Your task to perform on an android device: Play the new Maroon 5 video on YouTube Image 0: 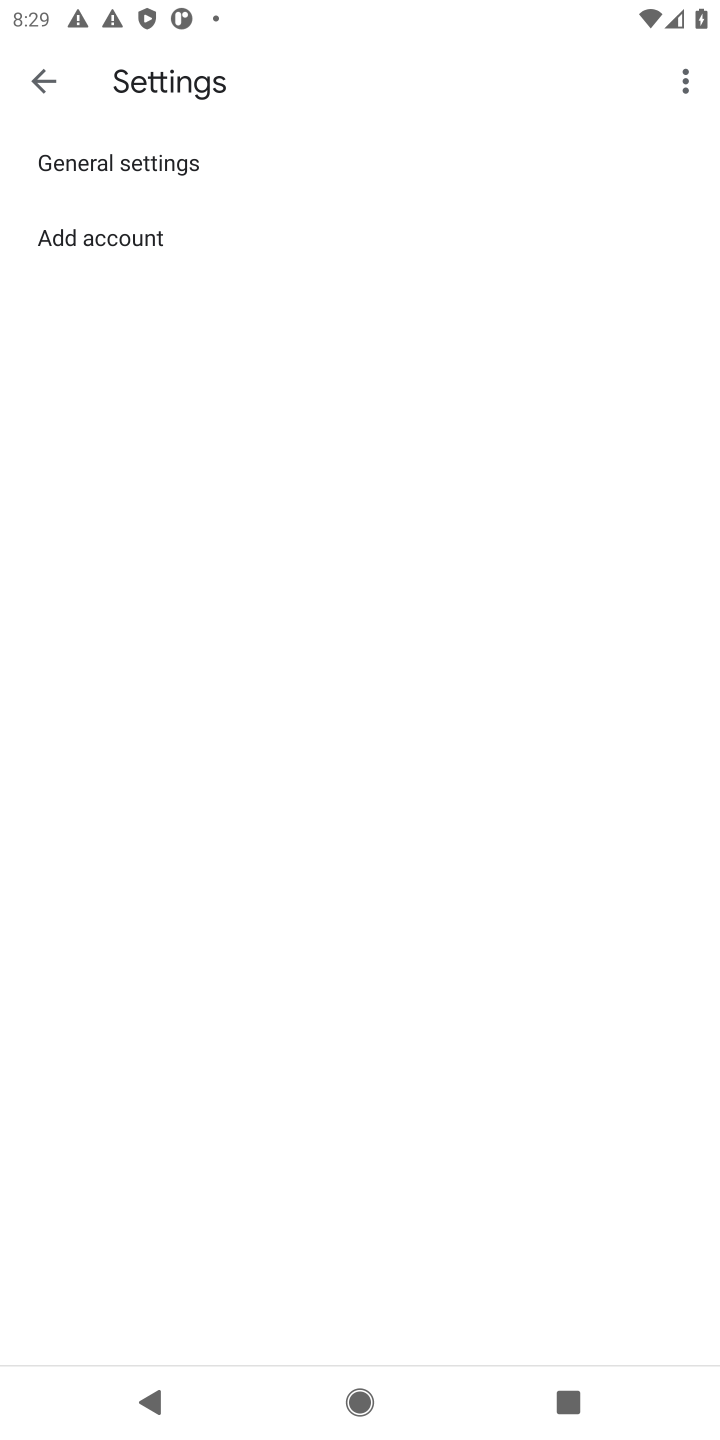
Step 0: press home button
Your task to perform on an android device: Play the new Maroon 5 video on YouTube Image 1: 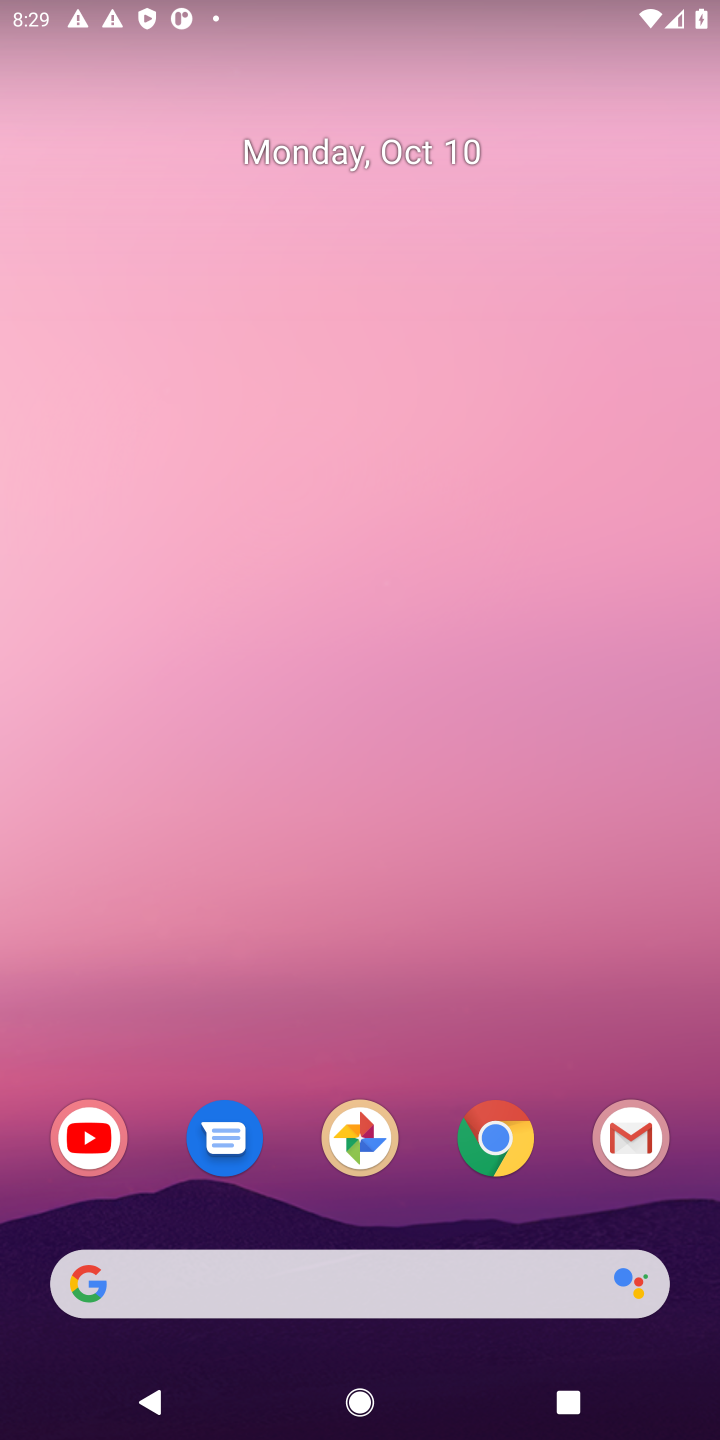
Step 1: click (84, 1140)
Your task to perform on an android device: Play the new Maroon 5 video on YouTube Image 2: 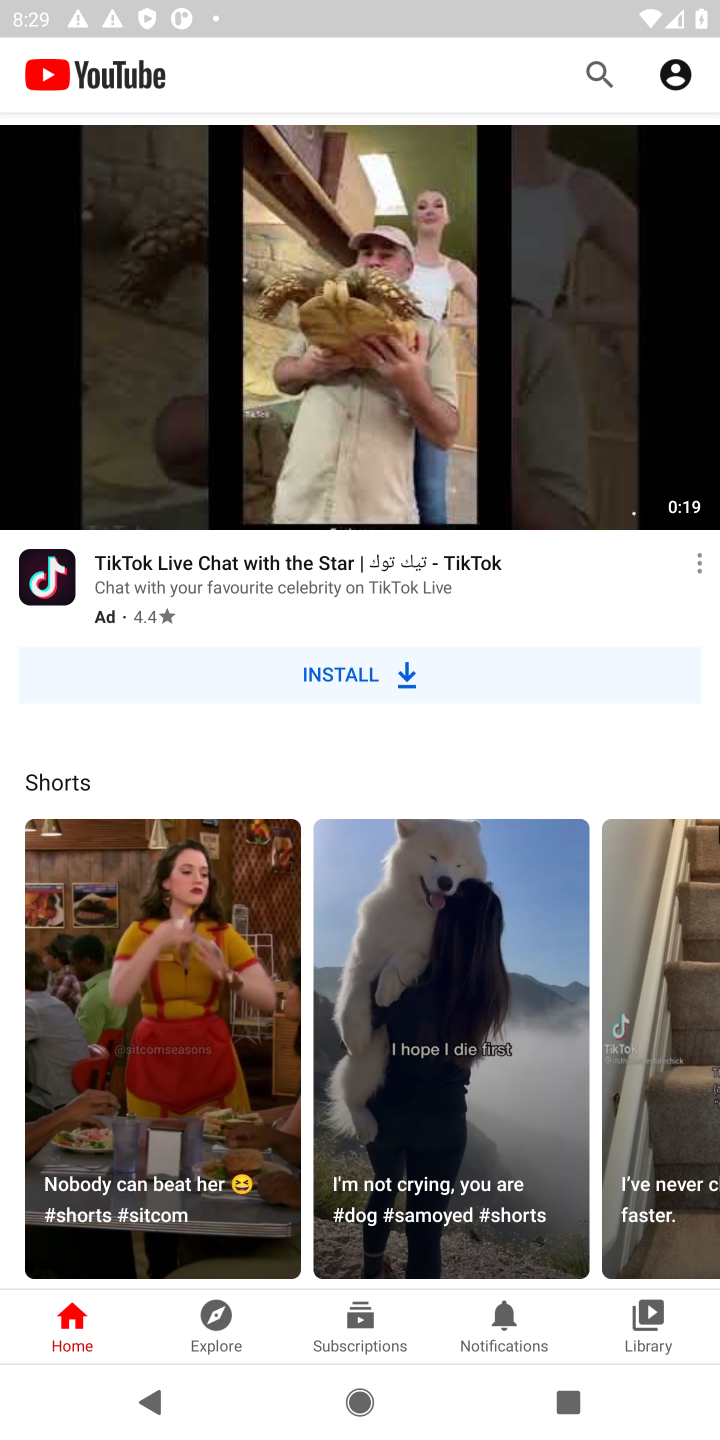
Step 2: click (598, 74)
Your task to perform on an android device: Play the new Maroon 5 video on YouTube Image 3: 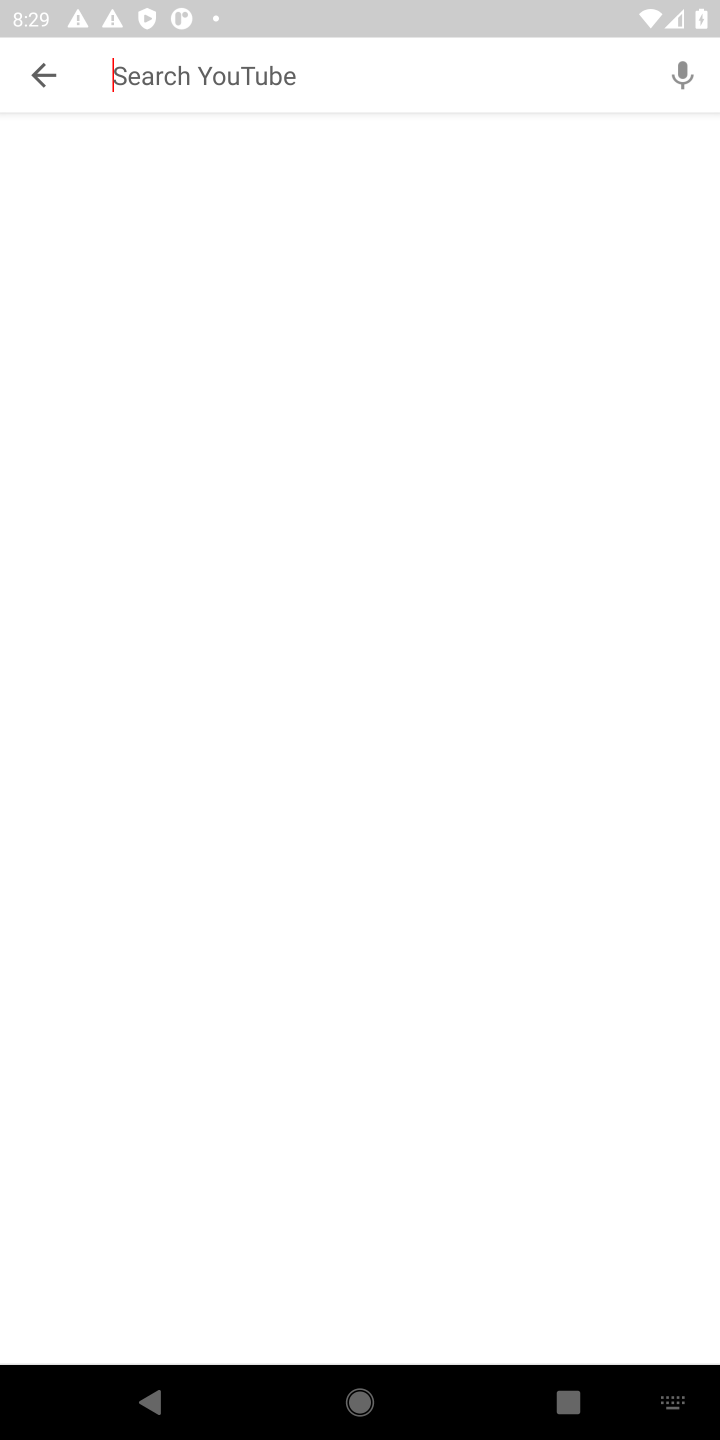
Step 3: type "New Maroon 5 video"
Your task to perform on an android device: Play the new Maroon 5 video on YouTube Image 4: 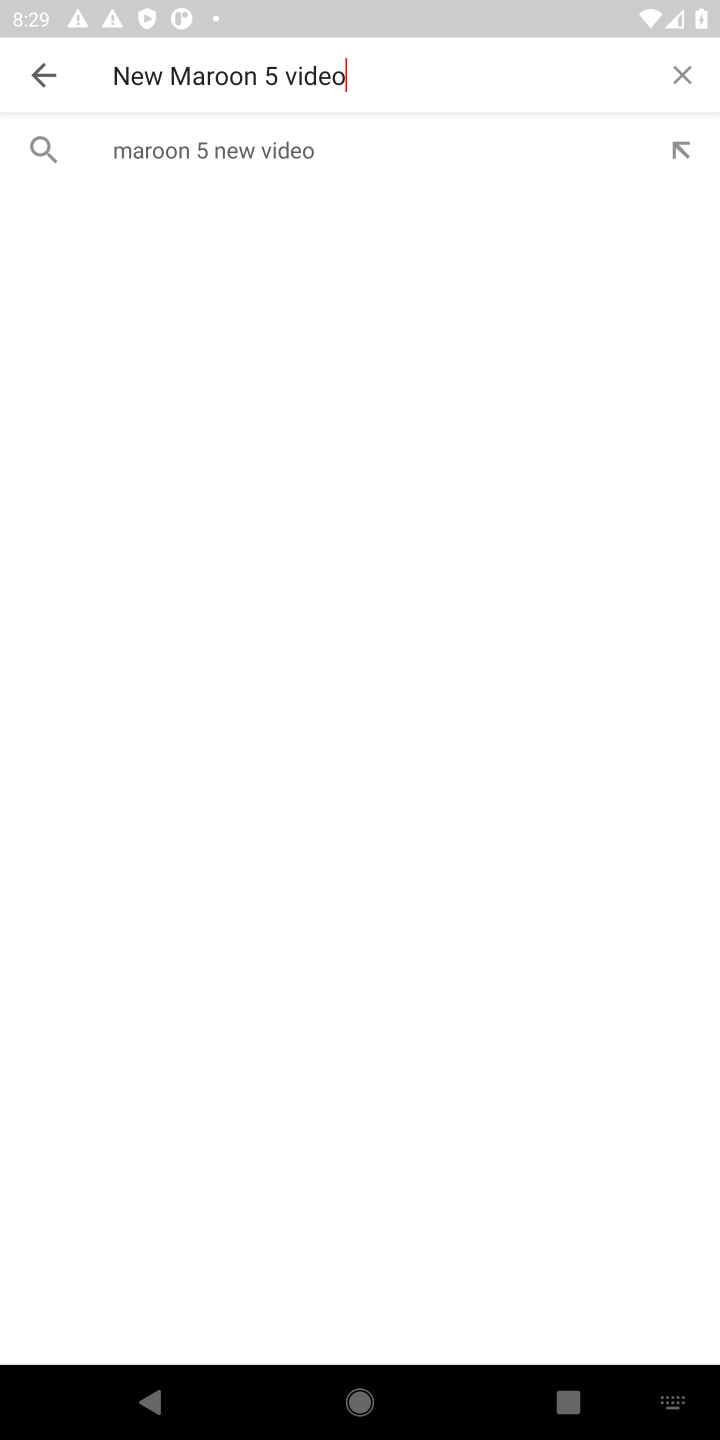
Step 4: click (226, 156)
Your task to perform on an android device: Play the new Maroon 5 video on YouTube Image 5: 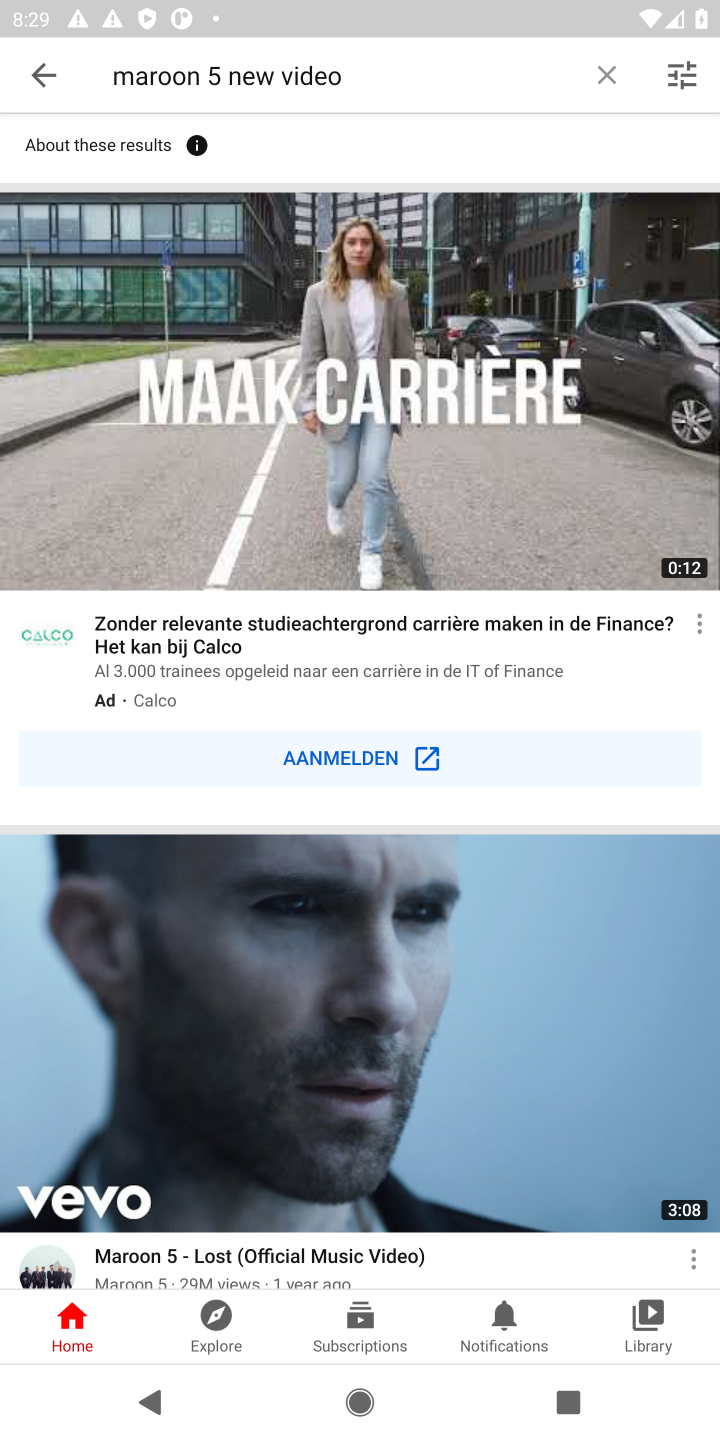
Step 5: drag from (413, 1076) to (603, 784)
Your task to perform on an android device: Play the new Maroon 5 video on YouTube Image 6: 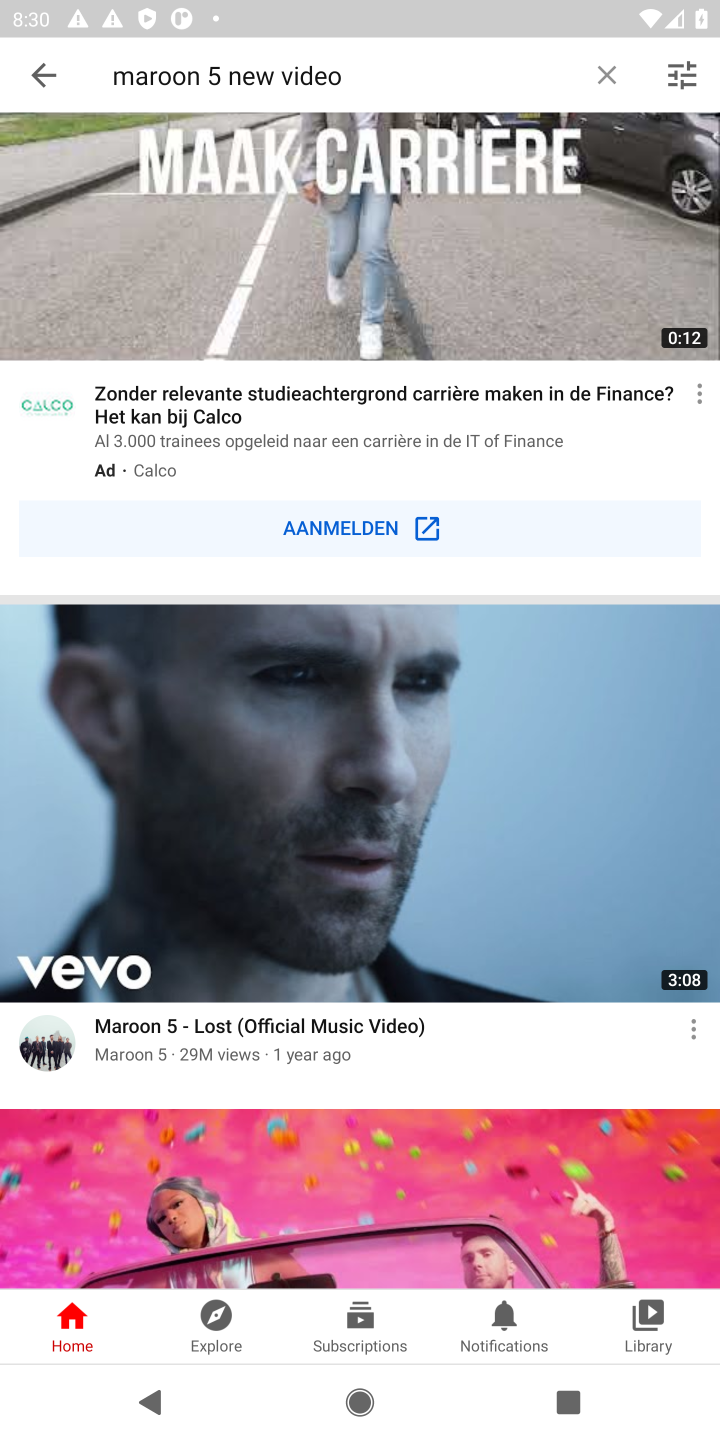
Step 6: click (420, 864)
Your task to perform on an android device: Play the new Maroon 5 video on YouTube Image 7: 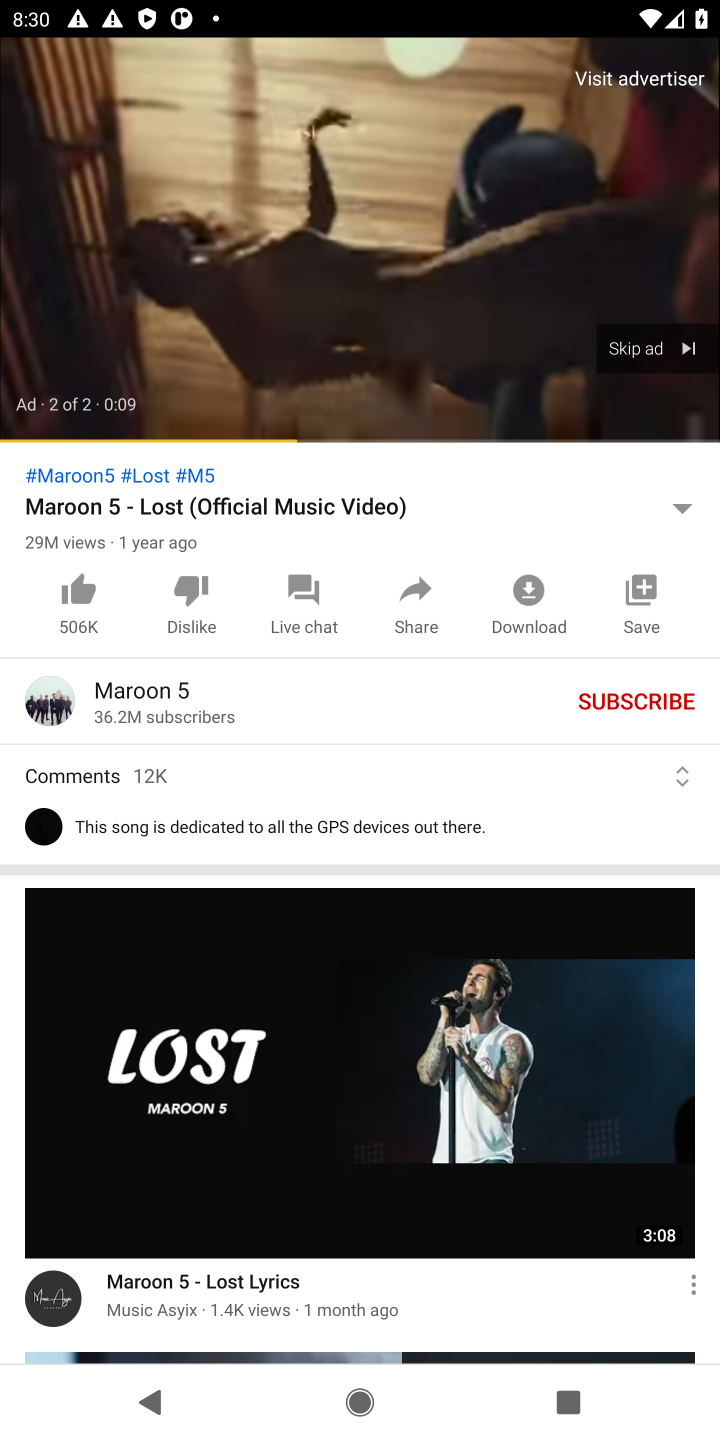
Step 7: click (656, 353)
Your task to perform on an android device: Play the new Maroon 5 video on YouTube Image 8: 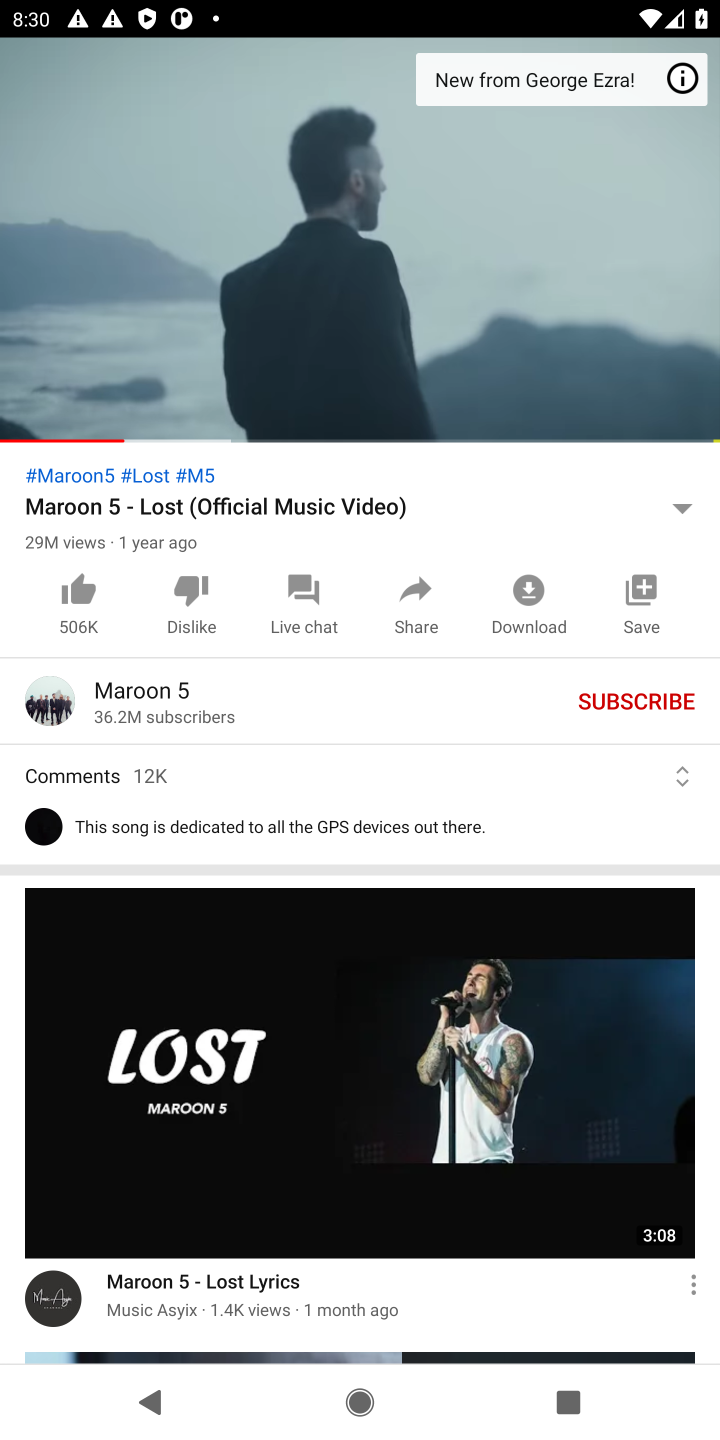
Step 8: task complete